Your task to perform on an android device: Go to Maps Image 0: 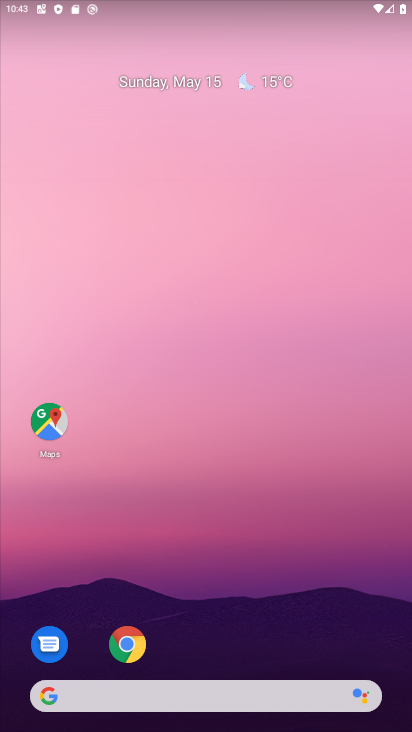
Step 0: click (53, 414)
Your task to perform on an android device: Go to Maps Image 1: 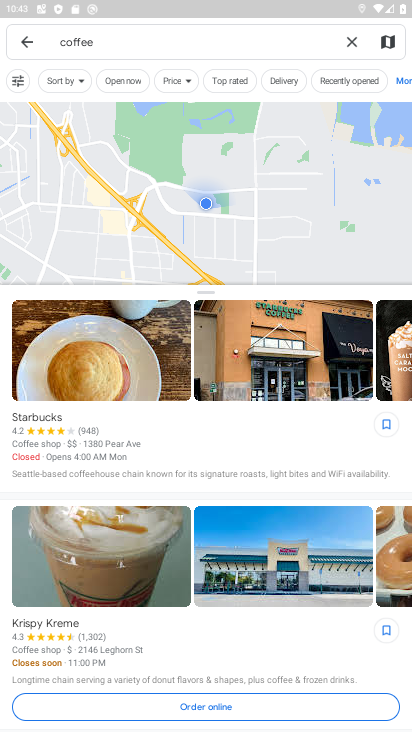
Step 1: task complete